Your task to perform on an android device: move a message to another label in the gmail app Image 0: 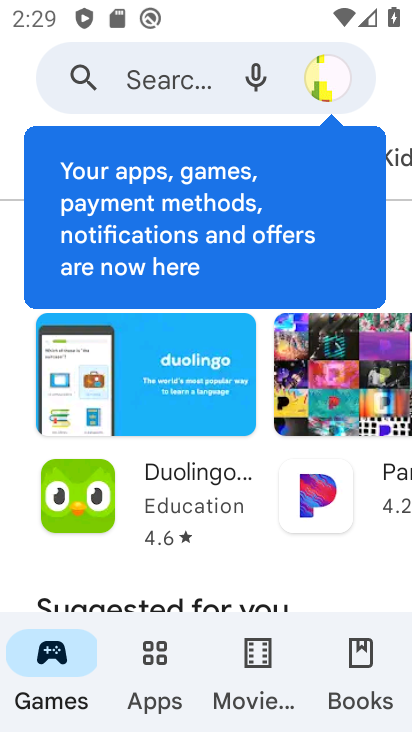
Step 0: press back button
Your task to perform on an android device: move a message to another label in the gmail app Image 1: 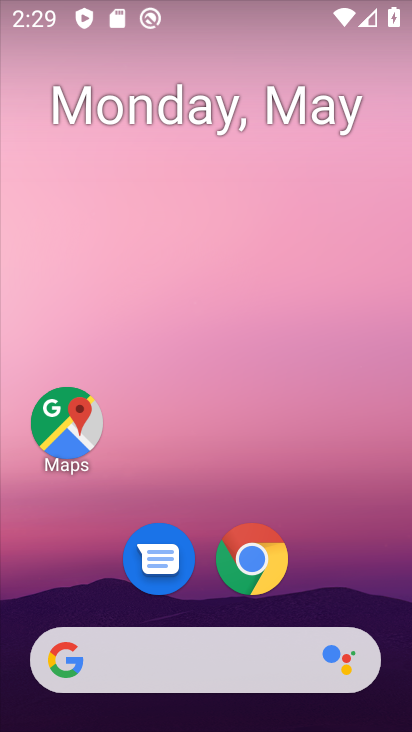
Step 1: drag from (347, 557) to (305, 9)
Your task to perform on an android device: move a message to another label in the gmail app Image 2: 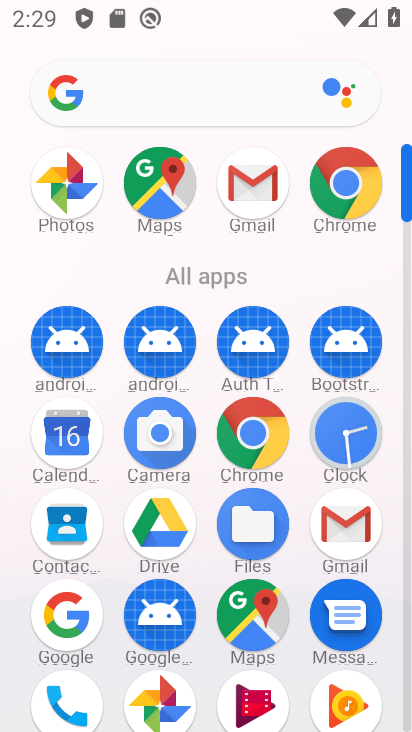
Step 2: drag from (5, 571) to (13, 252)
Your task to perform on an android device: move a message to another label in the gmail app Image 3: 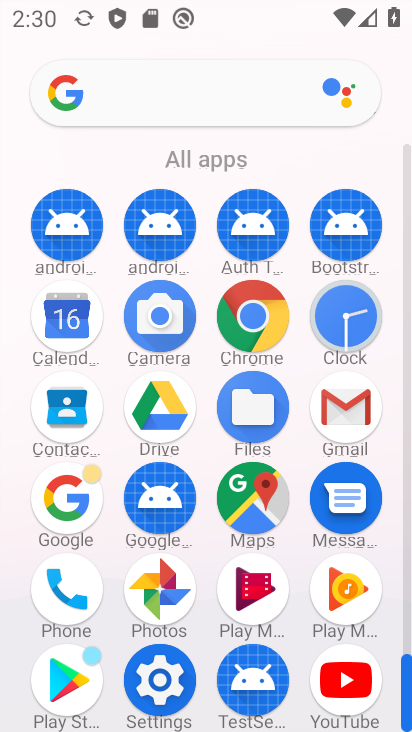
Step 3: click (342, 399)
Your task to perform on an android device: move a message to another label in the gmail app Image 4: 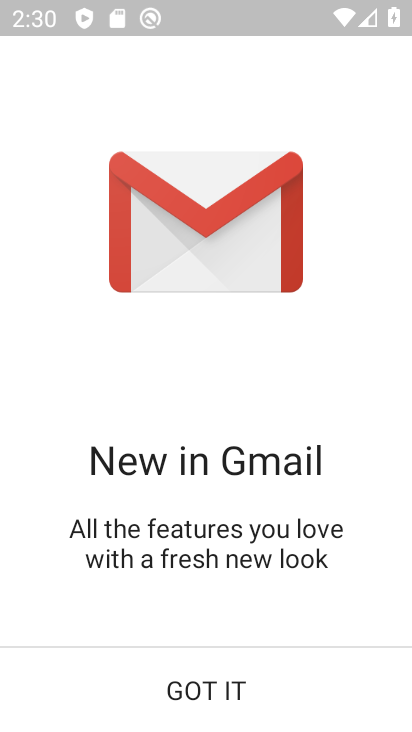
Step 4: click (176, 670)
Your task to perform on an android device: move a message to another label in the gmail app Image 5: 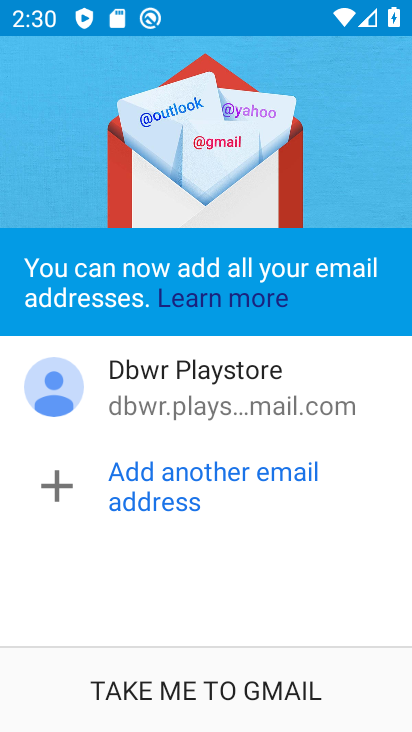
Step 5: click (195, 682)
Your task to perform on an android device: move a message to another label in the gmail app Image 6: 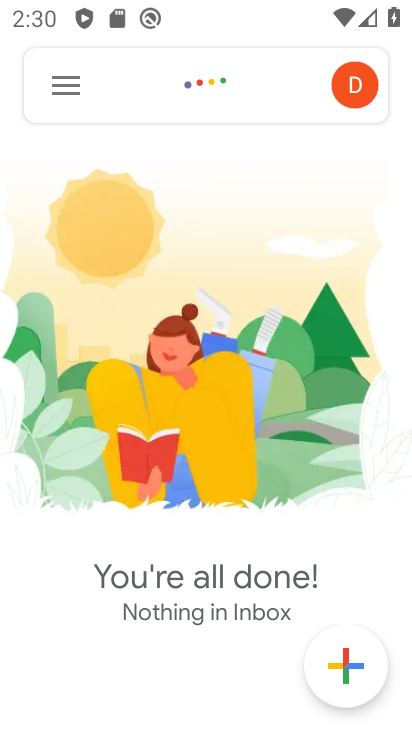
Step 6: click (70, 82)
Your task to perform on an android device: move a message to another label in the gmail app Image 7: 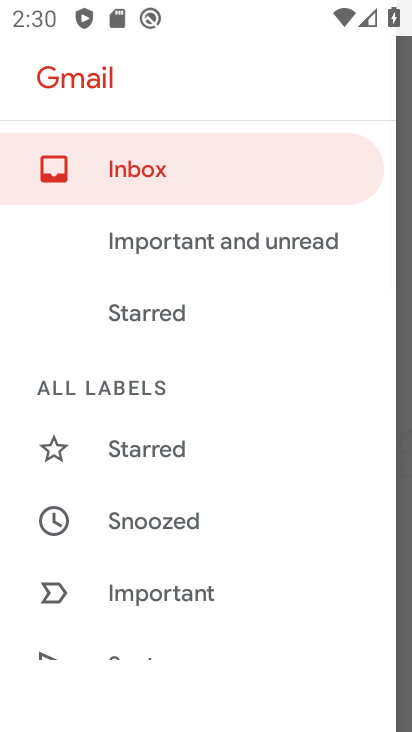
Step 7: drag from (221, 560) to (209, 179)
Your task to perform on an android device: move a message to another label in the gmail app Image 8: 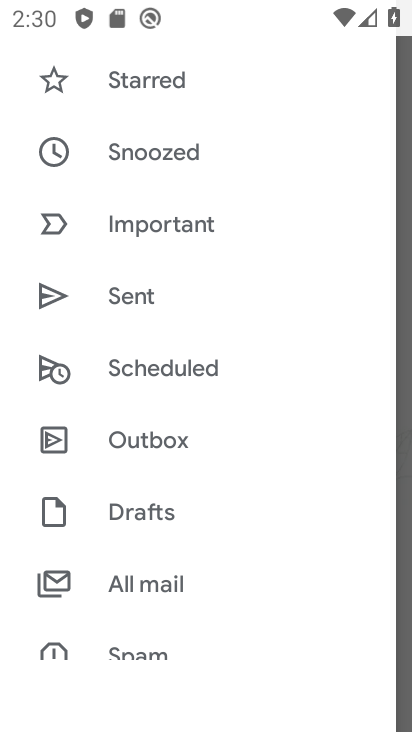
Step 8: drag from (205, 595) to (201, 183)
Your task to perform on an android device: move a message to another label in the gmail app Image 9: 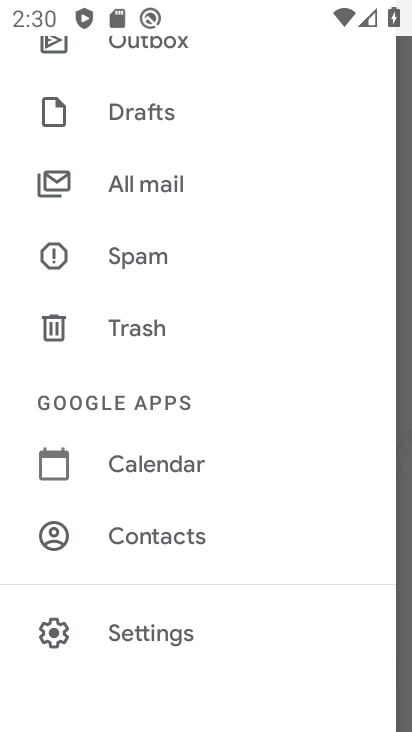
Step 9: drag from (179, 648) to (203, 299)
Your task to perform on an android device: move a message to another label in the gmail app Image 10: 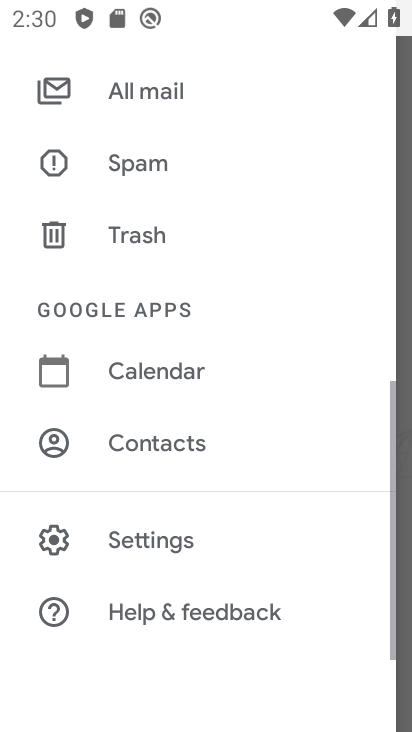
Step 10: drag from (209, 167) to (234, 592)
Your task to perform on an android device: move a message to another label in the gmail app Image 11: 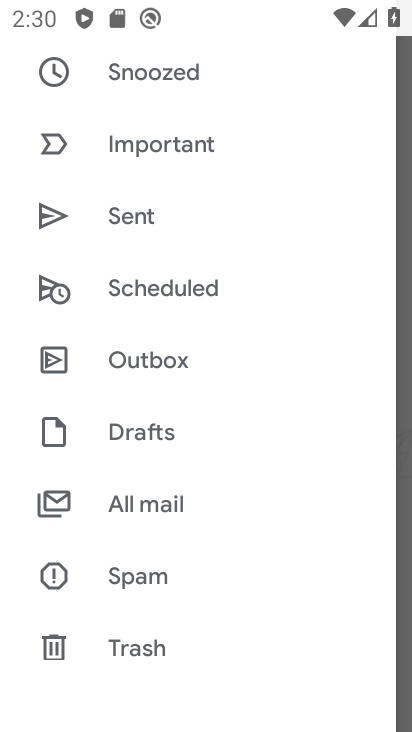
Step 11: click (185, 508)
Your task to perform on an android device: move a message to another label in the gmail app Image 12: 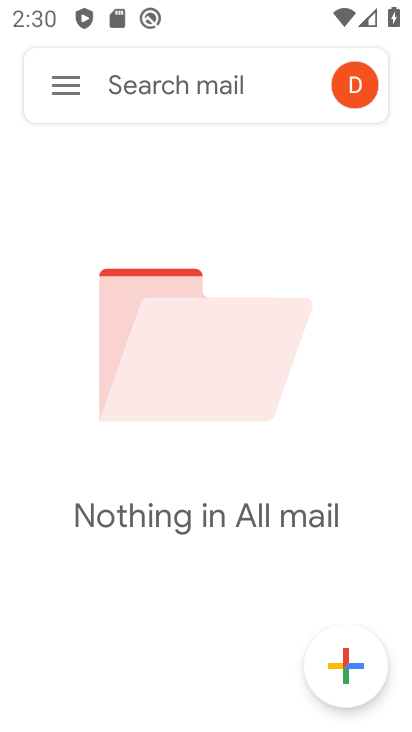
Step 12: click (61, 91)
Your task to perform on an android device: move a message to another label in the gmail app Image 13: 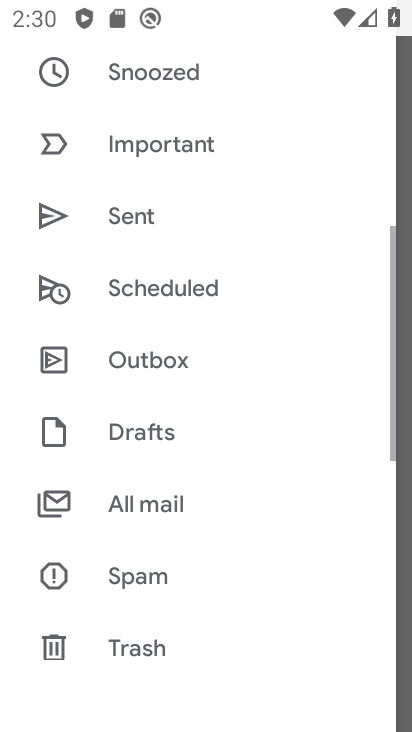
Step 13: drag from (316, 182) to (285, 596)
Your task to perform on an android device: move a message to another label in the gmail app Image 14: 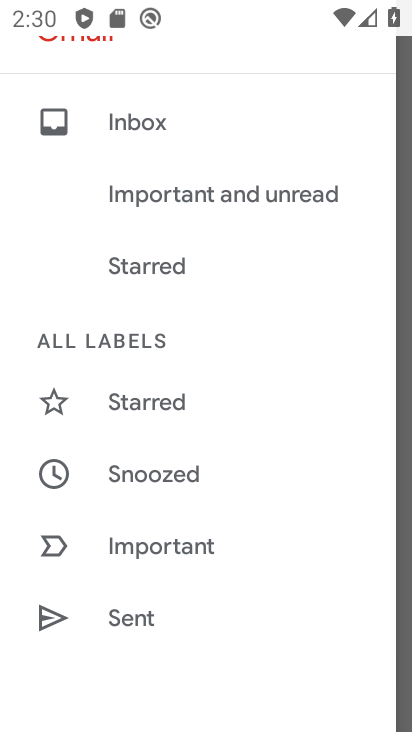
Step 14: drag from (261, 360) to (278, 657)
Your task to perform on an android device: move a message to another label in the gmail app Image 15: 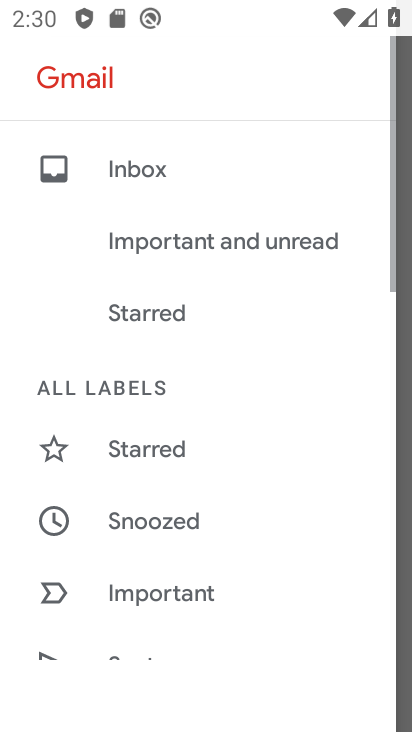
Step 15: click (188, 168)
Your task to perform on an android device: move a message to another label in the gmail app Image 16: 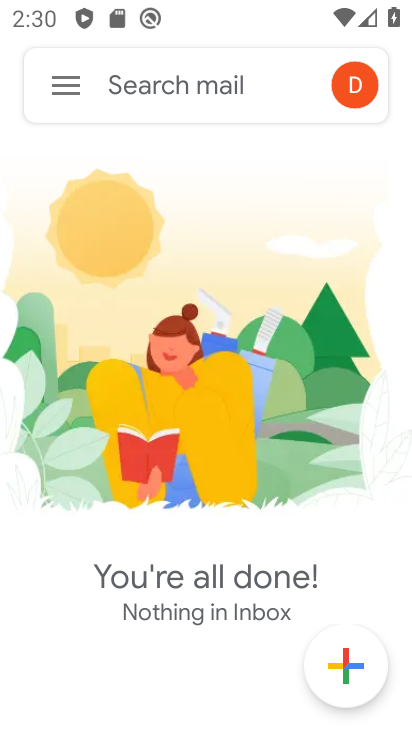
Step 16: click (54, 68)
Your task to perform on an android device: move a message to another label in the gmail app Image 17: 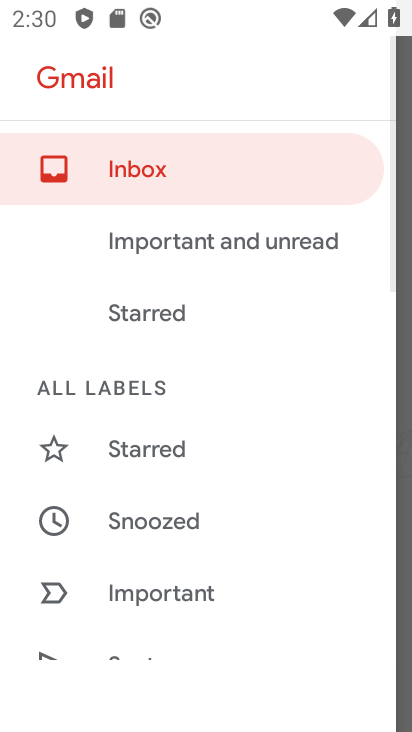
Step 17: drag from (261, 502) to (259, 184)
Your task to perform on an android device: move a message to another label in the gmail app Image 18: 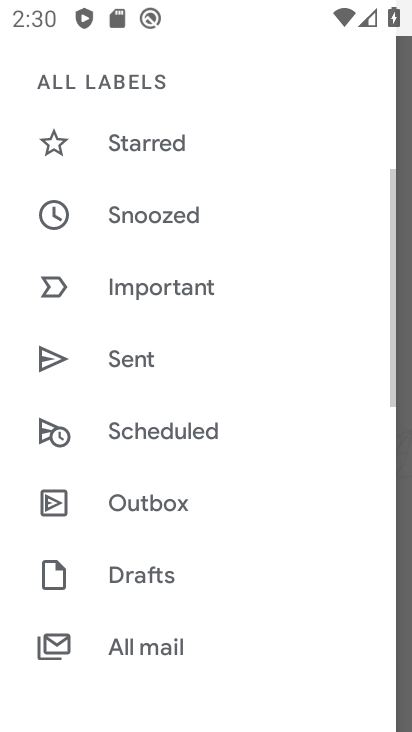
Step 18: drag from (220, 612) to (238, 225)
Your task to perform on an android device: move a message to another label in the gmail app Image 19: 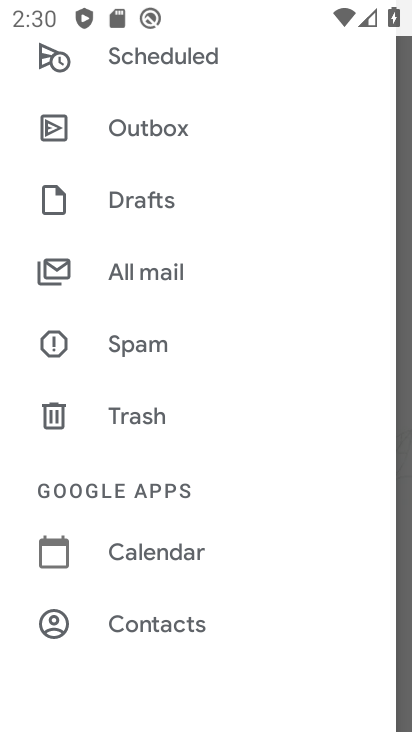
Step 19: click (159, 264)
Your task to perform on an android device: move a message to another label in the gmail app Image 20: 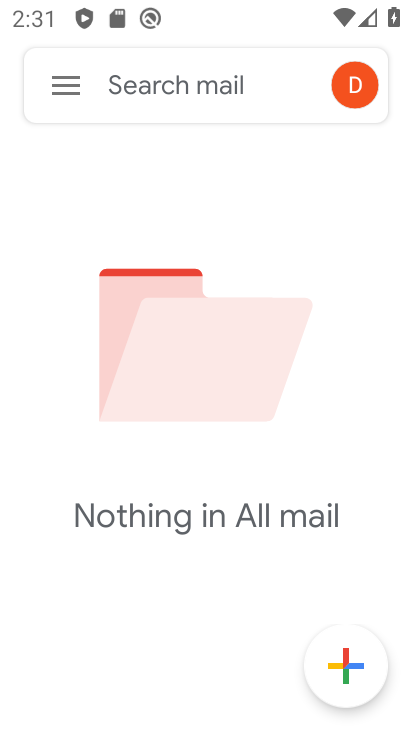
Step 20: task complete